Your task to perform on an android device: turn off sleep mode Image 0: 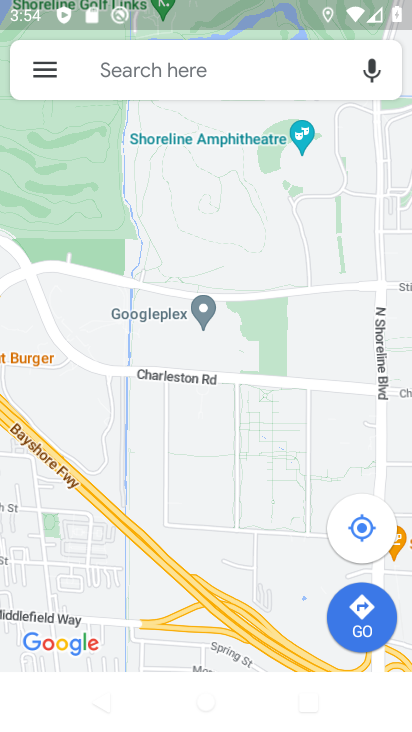
Step 0: press home button
Your task to perform on an android device: turn off sleep mode Image 1: 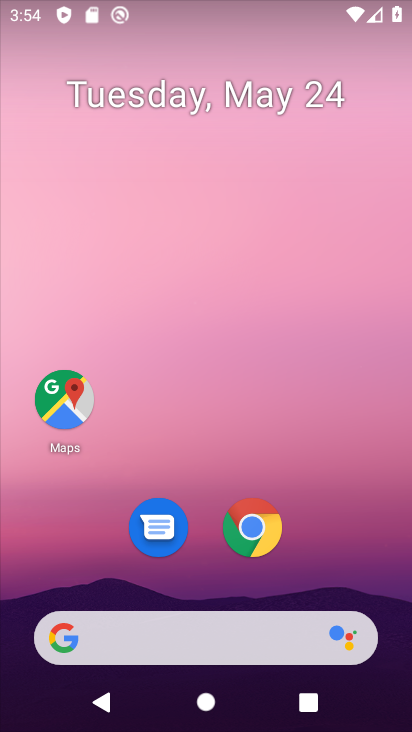
Step 1: drag from (263, 76) to (372, 0)
Your task to perform on an android device: turn off sleep mode Image 2: 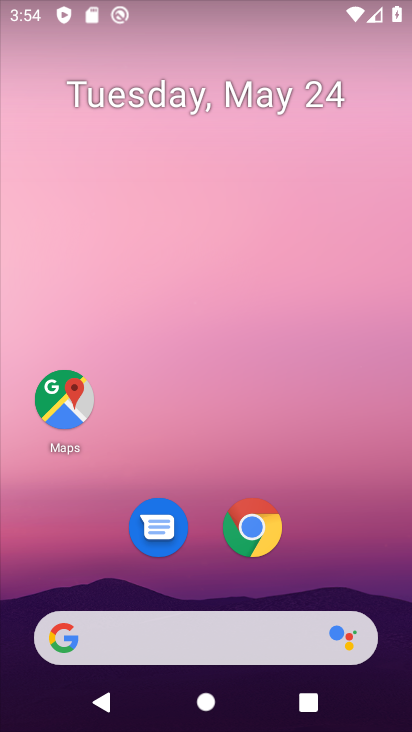
Step 2: drag from (216, 663) to (307, 40)
Your task to perform on an android device: turn off sleep mode Image 3: 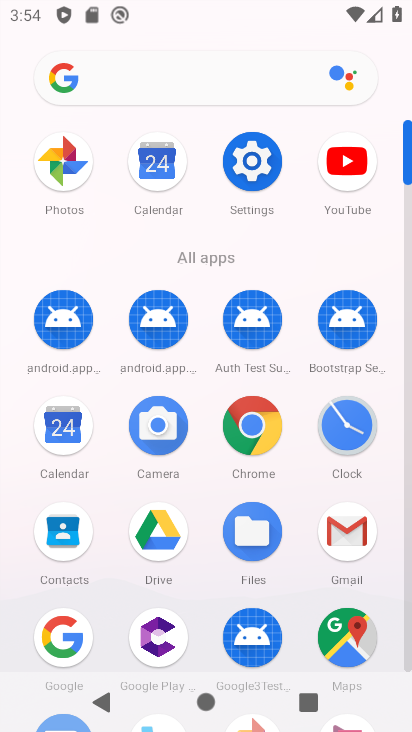
Step 3: click (241, 165)
Your task to perform on an android device: turn off sleep mode Image 4: 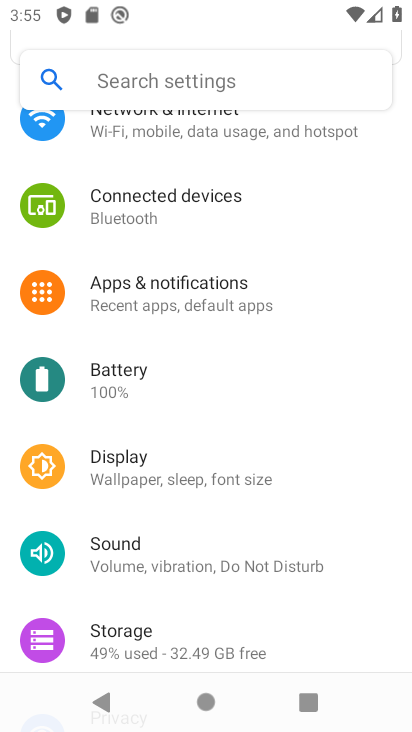
Step 4: click (200, 100)
Your task to perform on an android device: turn off sleep mode Image 5: 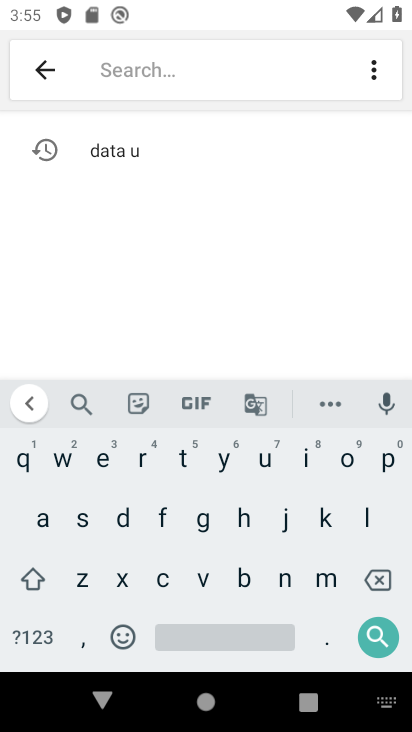
Step 5: click (75, 521)
Your task to perform on an android device: turn off sleep mode Image 6: 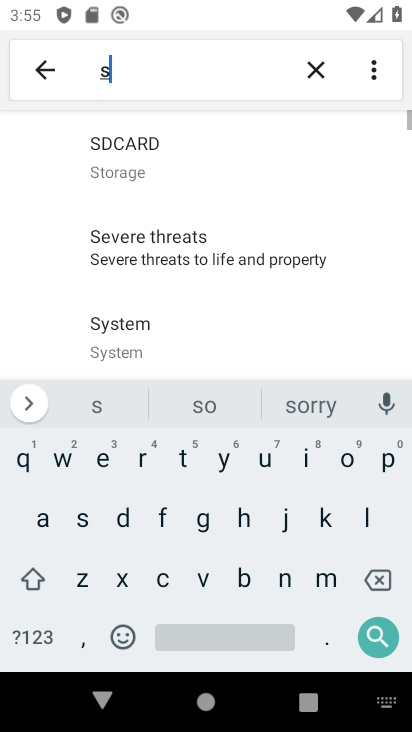
Step 6: click (366, 521)
Your task to perform on an android device: turn off sleep mode Image 7: 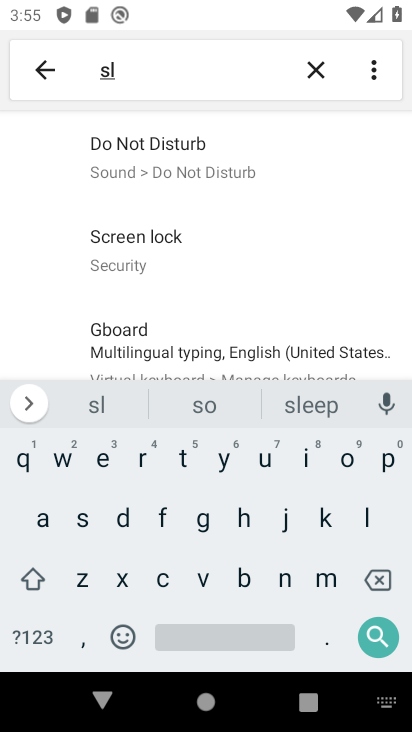
Step 7: click (168, 167)
Your task to perform on an android device: turn off sleep mode Image 8: 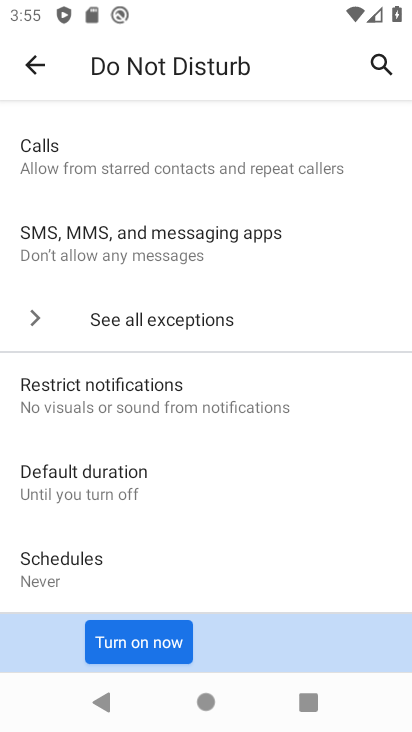
Step 8: click (177, 631)
Your task to perform on an android device: turn off sleep mode Image 9: 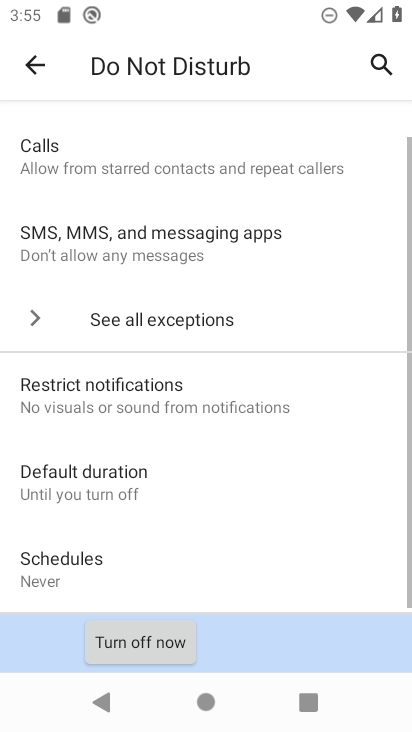
Step 9: click (169, 635)
Your task to perform on an android device: turn off sleep mode Image 10: 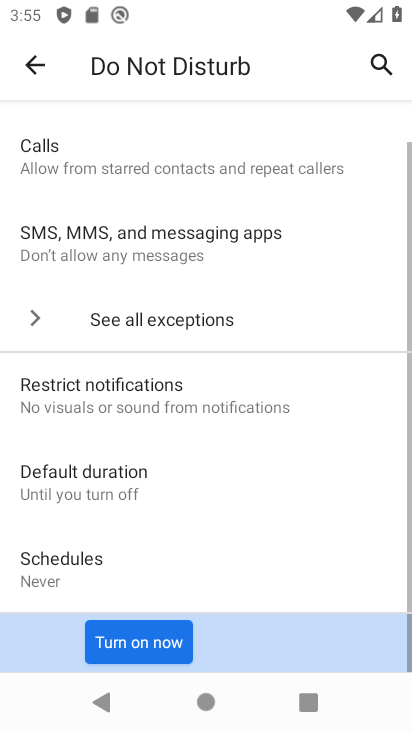
Step 10: task complete